Your task to perform on an android device: change text size in settings app Image 0: 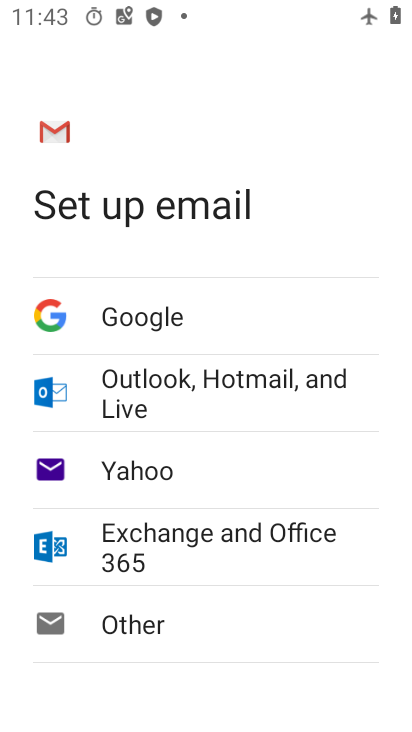
Step 0: press home button
Your task to perform on an android device: change text size in settings app Image 1: 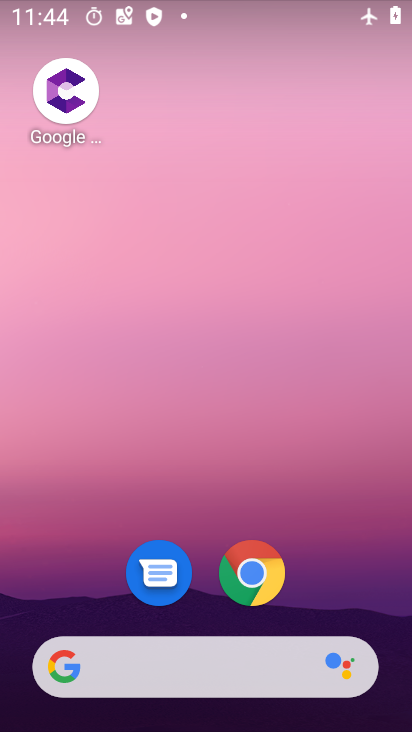
Step 1: drag from (311, 608) to (326, 140)
Your task to perform on an android device: change text size in settings app Image 2: 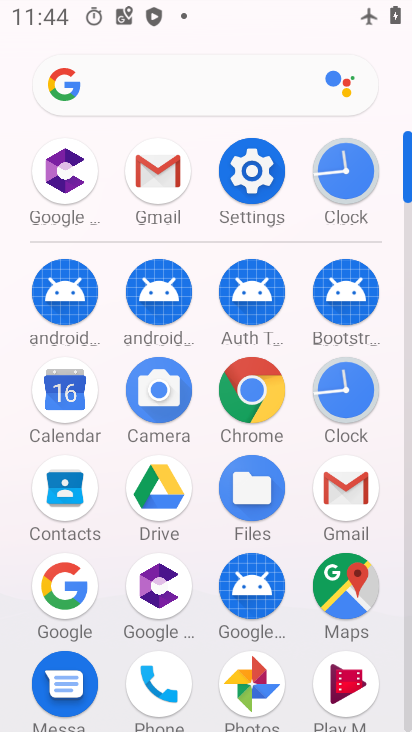
Step 2: click (238, 160)
Your task to perform on an android device: change text size in settings app Image 3: 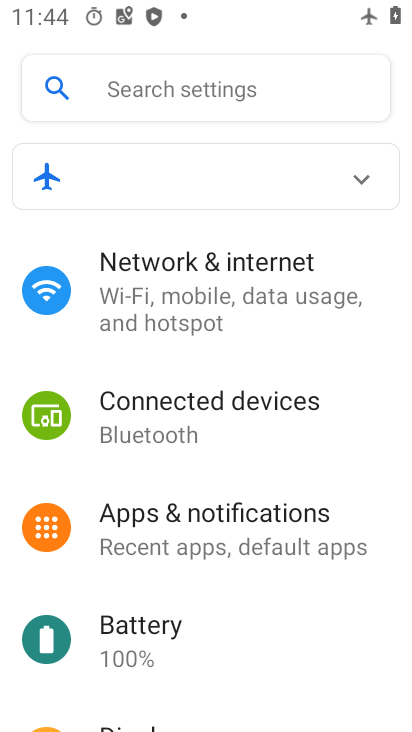
Step 3: drag from (314, 635) to (356, 302)
Your task to perform on an android device: change text size in settings app Image 4: 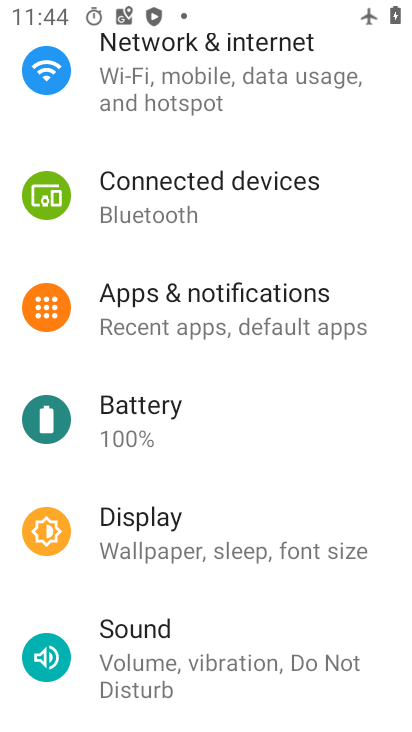
Step 4: click (339, 558)
Your task to perform on an android device: change text size in settings app Image 5: 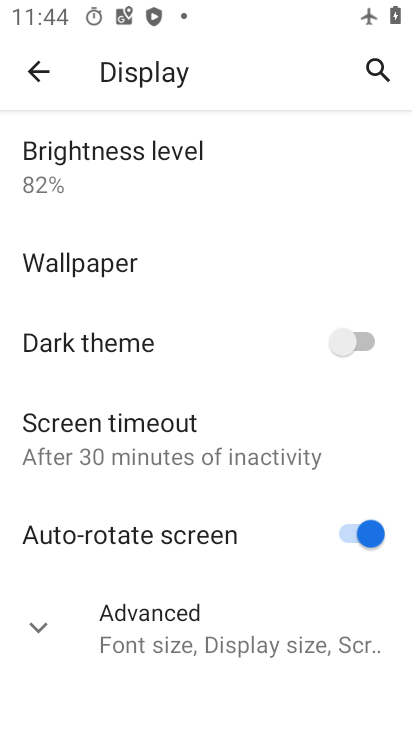
Step 5: click (297, 639)
Your task to perform on an android device: change text size in settings app Image 6: 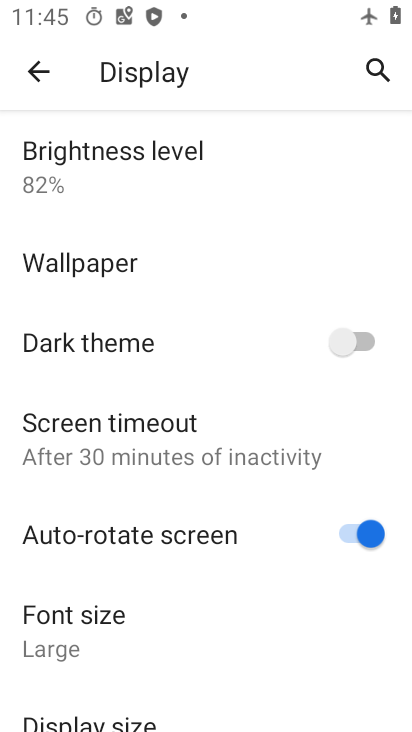
Step 6: click (76, 615)
Your task to perform on an android device: change text size in settings app Image 7: 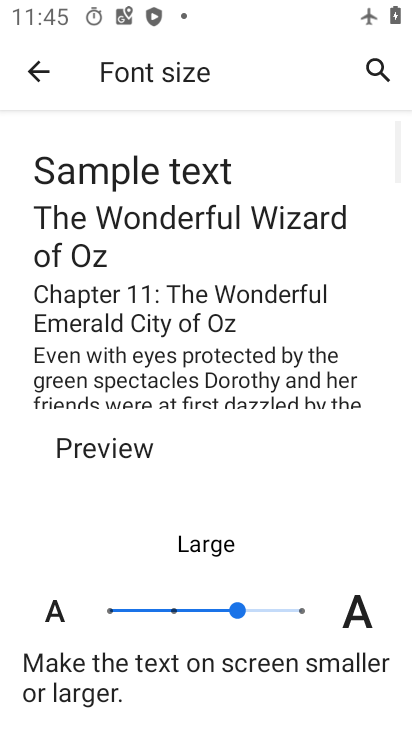
Step 7: click (110, 613)
Your task to perform on an android device: change text size in settings app Image 8: 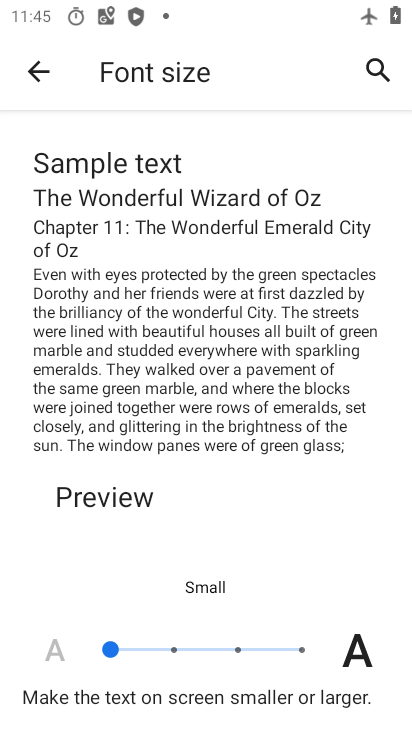
Step 8: task complete